Your task to perform on an android device: Turn on the flashlight Image 0: 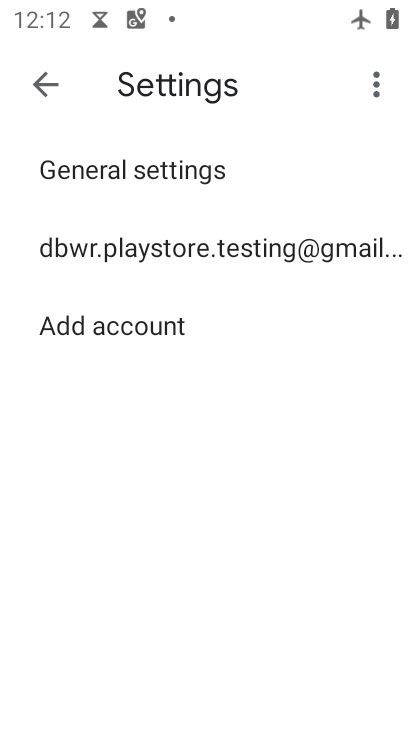
Step 0: press home button
Your task to perform on an android device: Turn on the flashlight Image 1: 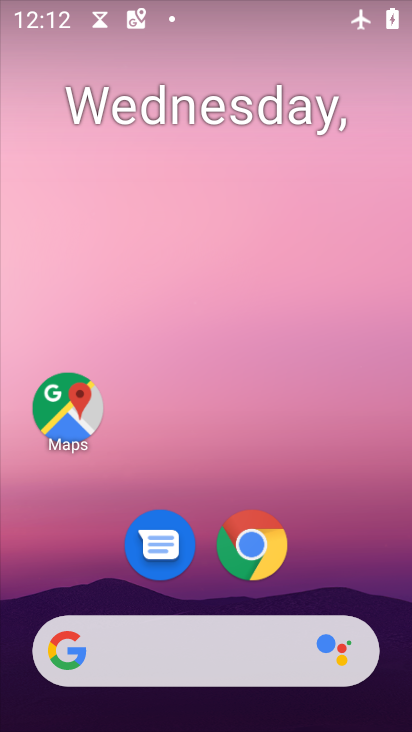
Step 1: drag from (331, 537) to (226, 7)
Your task to perform on an android device: Turn on the flashlight Image 2: 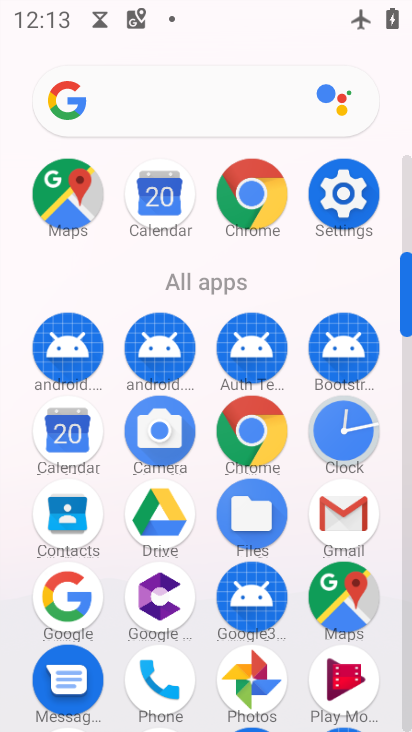
Step 2: click (330, 193)
Your task to perform on an android device: Turn on the flashlight Image 3: 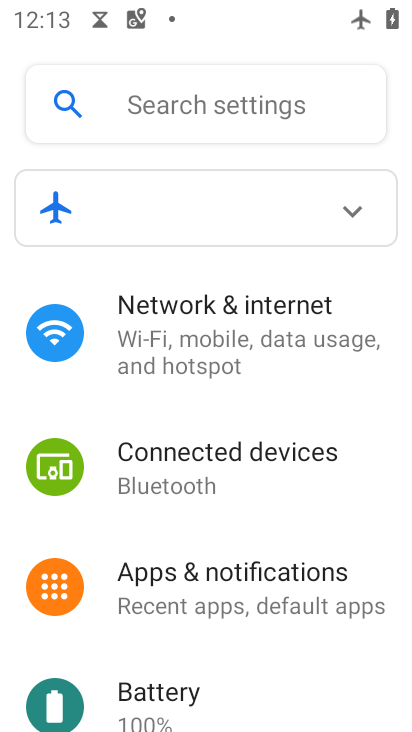
Step 3: task complete